Your task to perform on an android device: Open display settings Image 0: 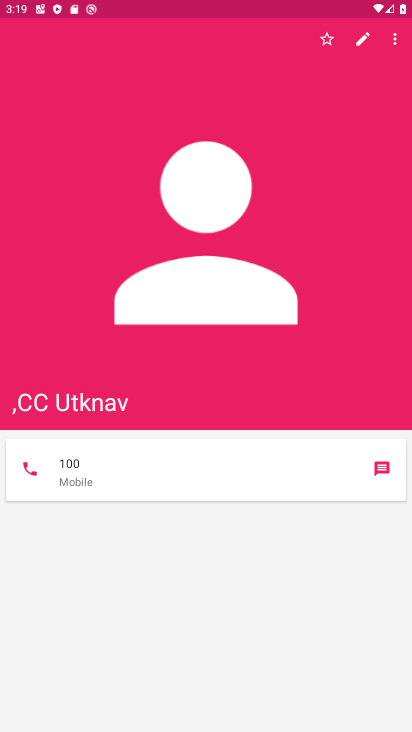
Step 0: press home button
Your task to perform on an android device: Open display settings Image 1: 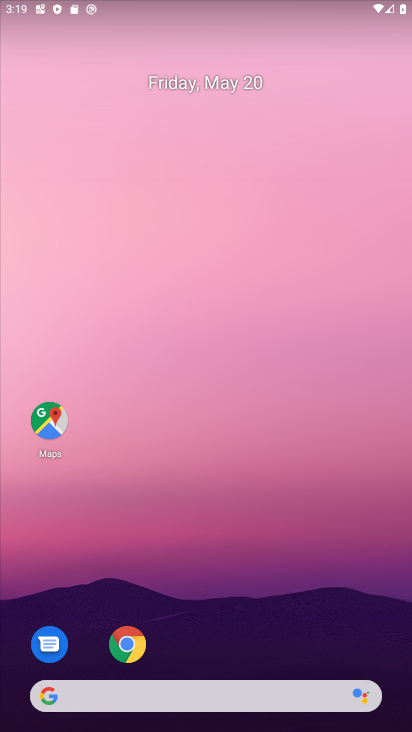
Step 1: drag from (238, 426) to (324, 202)
Your task to perform on an android device: Open display settings Image 2: 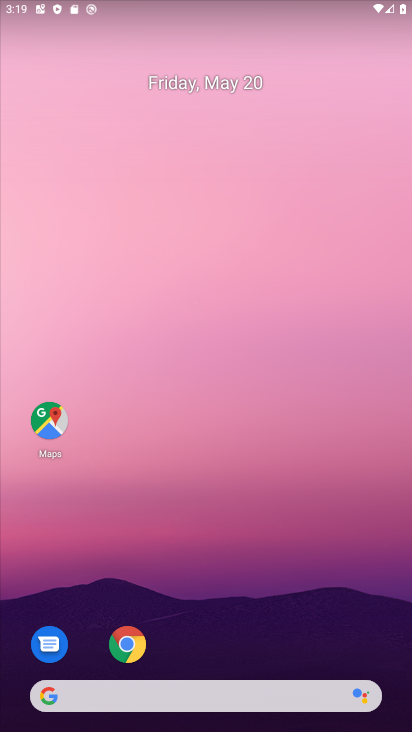
Step 2: drag from (280, 591) to (411, 81)
Your task to perform on an android device: Open display settings Image 3: 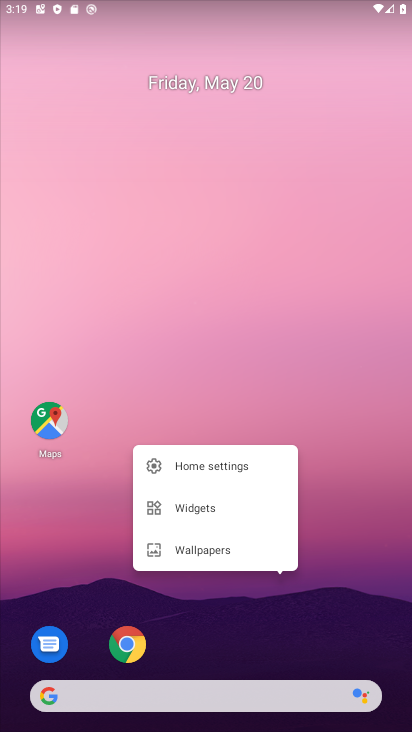
Step 3: click (306, 180)
Your task to perform on an android device: Open display settings Image 4: 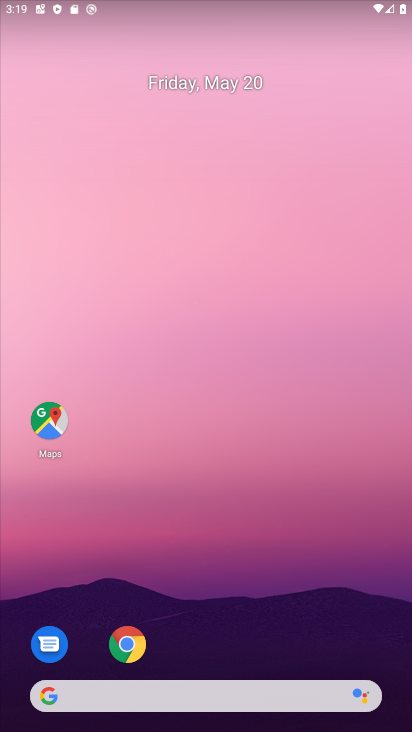
Step 4: drag from (271, 594) to (230, 55)
Your task to perform on an android device: Open display settings Image 5: 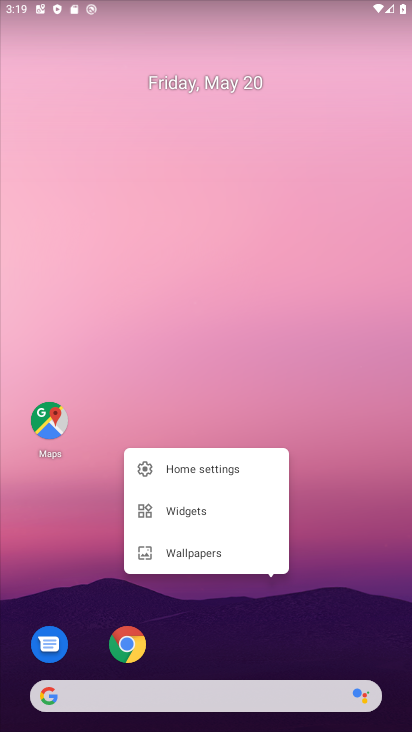
Step 5: click (231, 347)
Your task to perform on an android device: Open display settings Image 6: 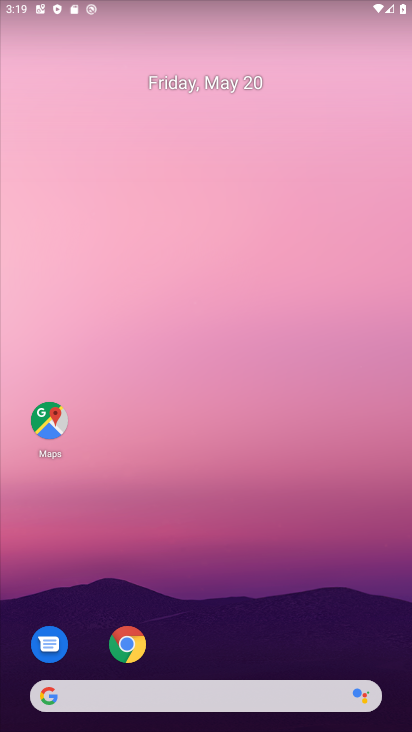
Step 6: drag from (220, 584) to (190, 238)
Your task to perform on an android device: Open display settings Image 7: 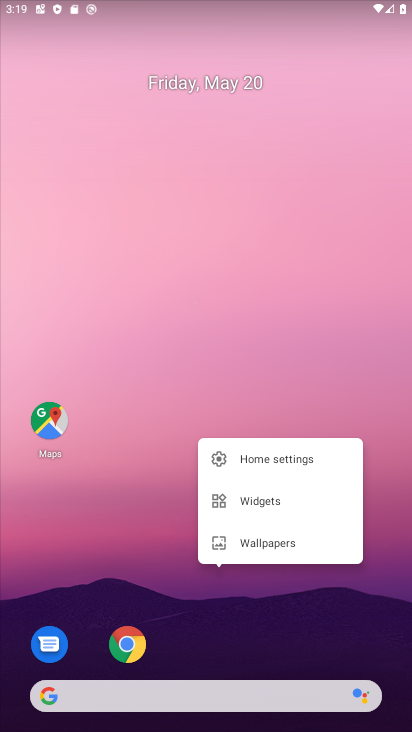
Step 7: click (188, 294)
Your task to perform on an android device: Open display settings Image 8: 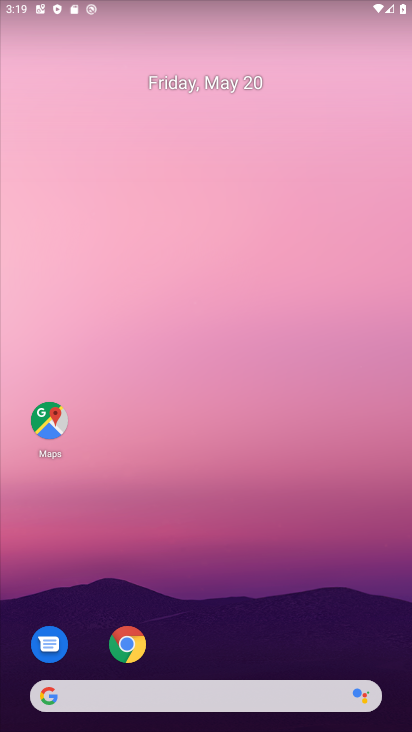
Step 8: drag from (217, 570) to (225, 73)
Your task to perform on an android device: Open display settings Image 9: 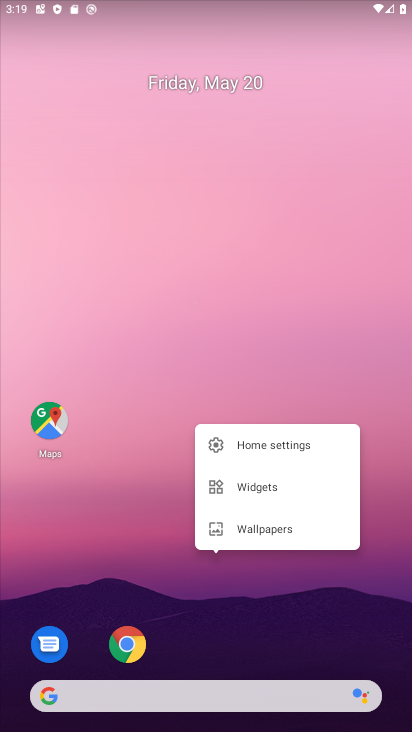
Step 9: click (211, 307)
Your task to perform on an android device: Open display settings Image 10: 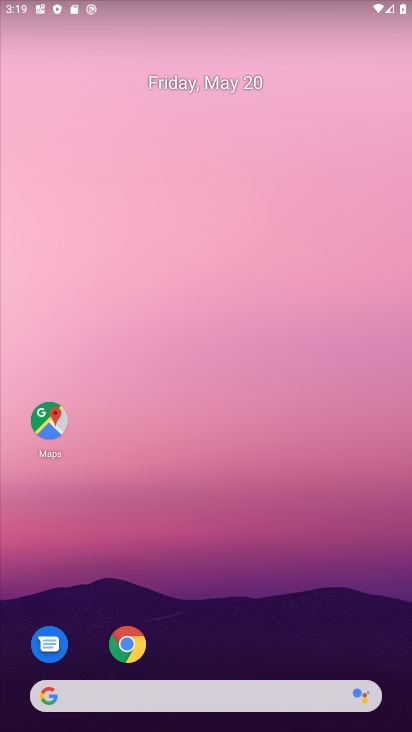
Step 10: drag from (244, 657) to (272, 119)
Your task to perform on an android device: Open display settings Image 11: 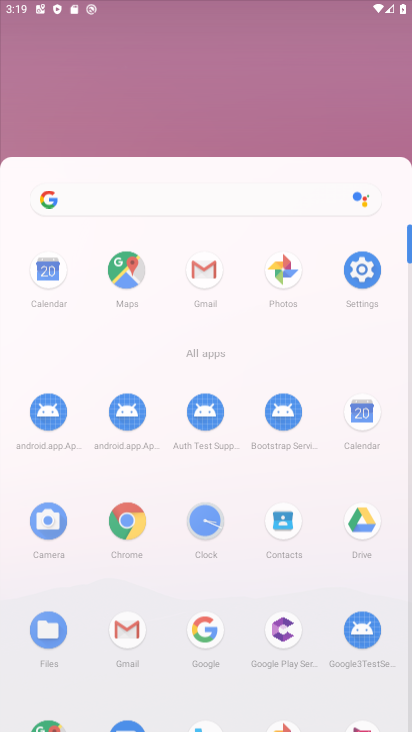
Step 11: click (270, 113)
Your task to perform on an android device: Open display settings Image 12: 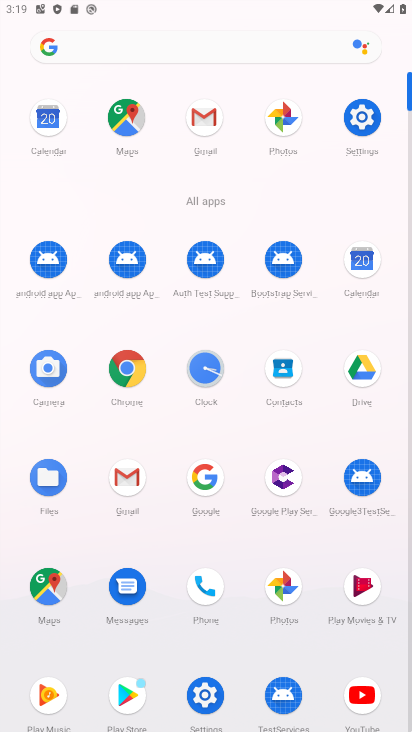
Step 12: click (347, 141)
Your task to perform on an android device: Open display settings Image 13: 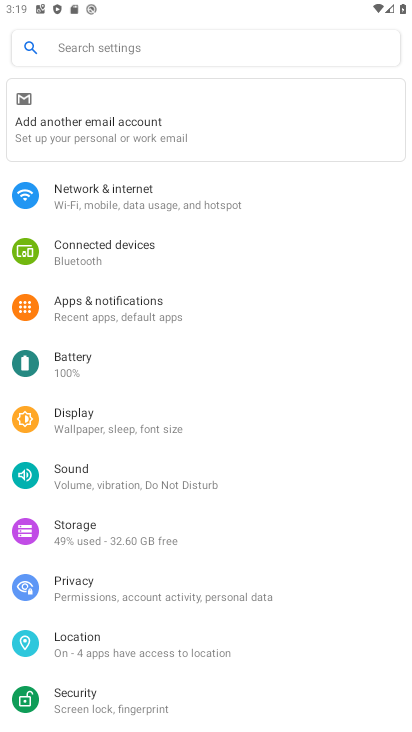
Step 13: click (126, 427)
Your task to perform on an android device: Open display settings Image 14: 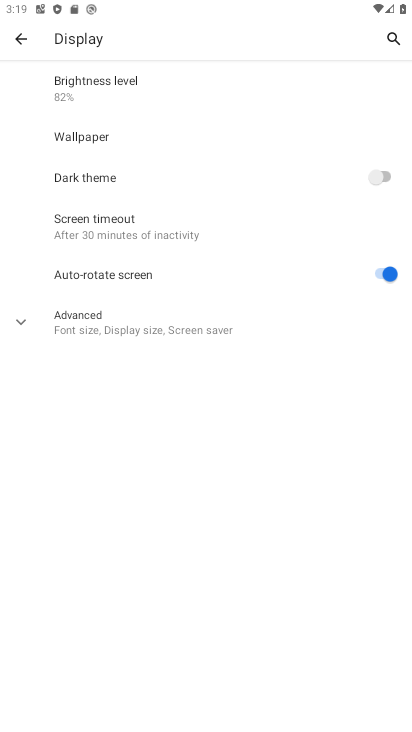
Step 14: task complete